Your task to perform on an android device: turn on translation in the chrome app Image 0: 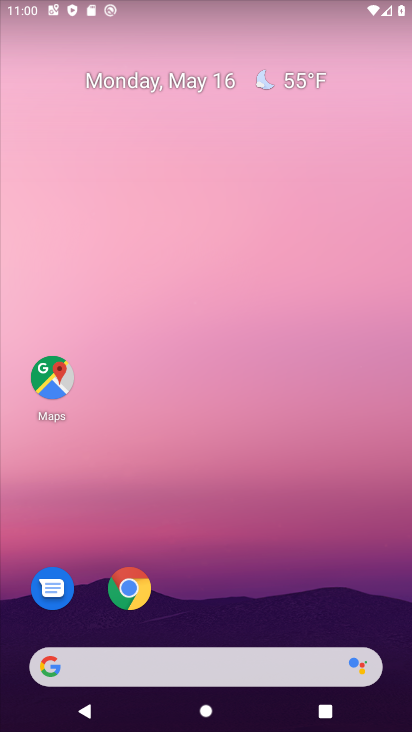
Step 0: drag from (367, 548) to (371, 158)
Your task to perform on an android device: turn on translation in the chrome app Image 1: 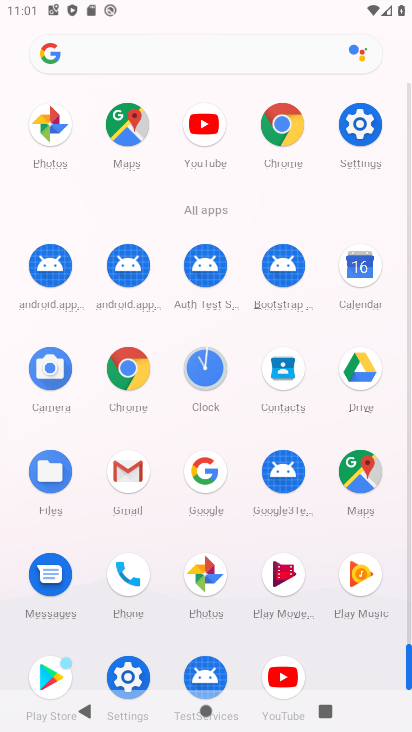
Step 1: click (273, 142)
Your task to perform on an android device: turn on translation in the chrome app Image 2: 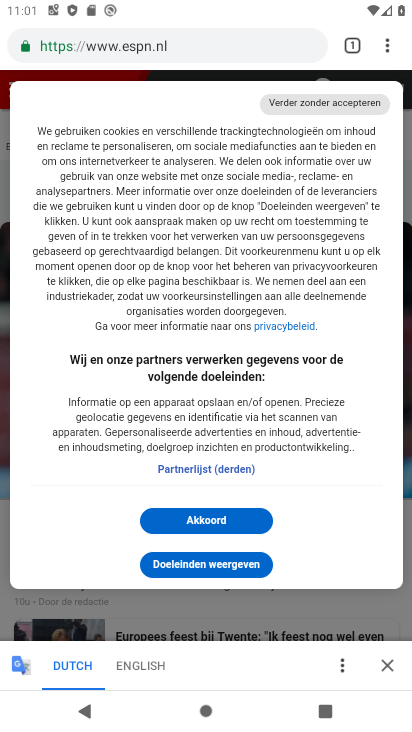
Step 2: click (389, 50)
Your task to perform on an android device: turn on translation in the chrome app Image 3: 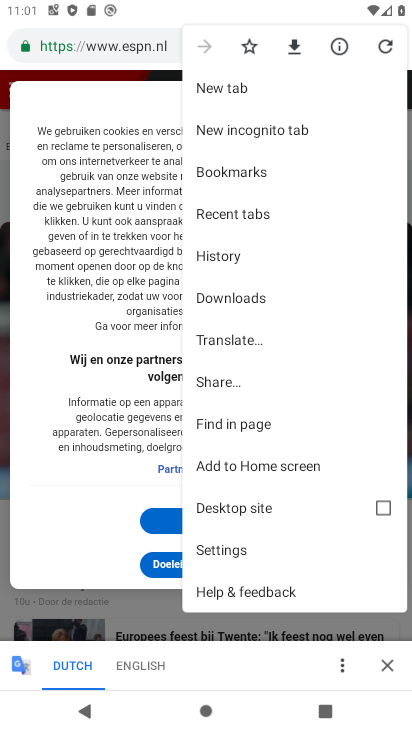
Step 3: click (247, 554)
Your task to perform on an android device: turn on translation in the chrome app Image 4: 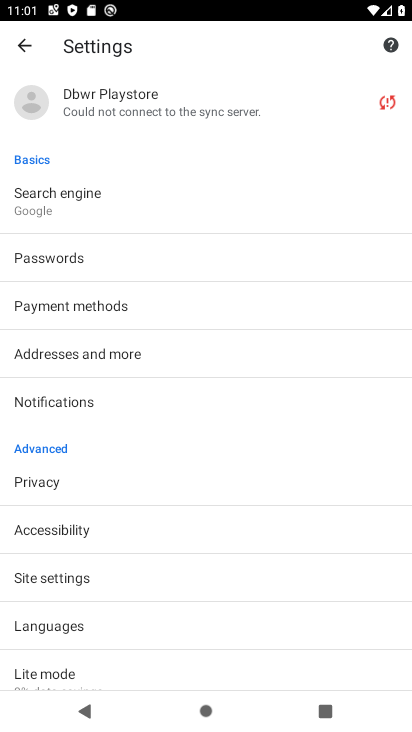
Step 4: drag from (279, 606) to (299, 357)
Your task to perform on an android device: turn on translation in the chrome app Image 5: 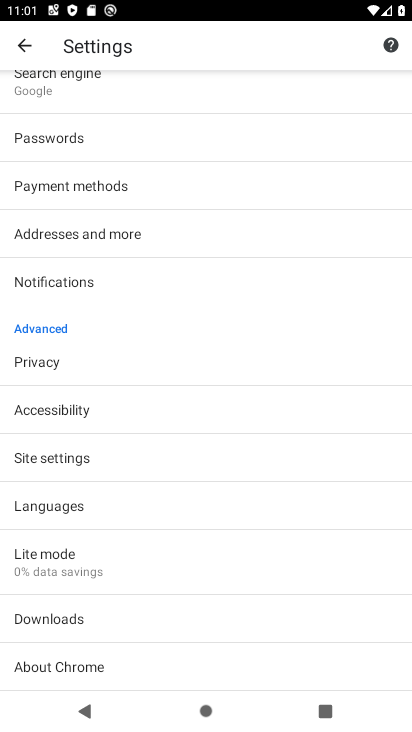
Step 5: drag from (265, 564) to (267, 426)
Your task to perform on an android device: turn on translation in the chrome app Image 6: 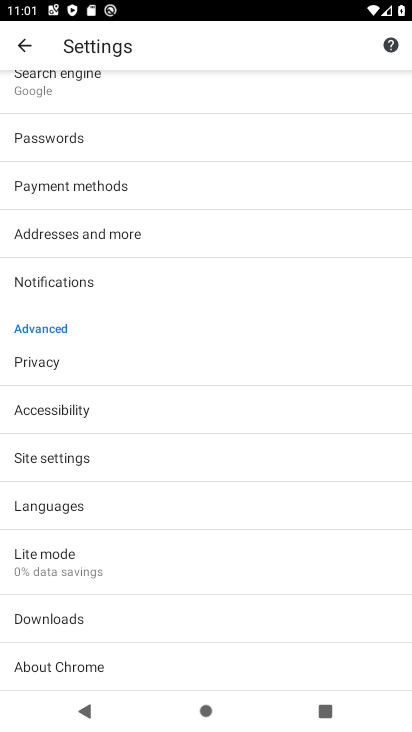
Step 6: drag from (282, 651) to (296, 504)
Your task to perform on an android device: turn on translation in the chrome app Image 7: 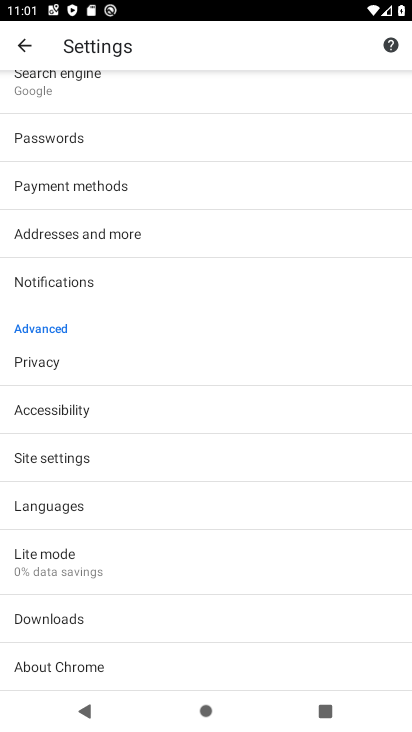
Step 7: click (271, 505)
Your task to perform on an android device: turn on translation in the chrome app Image 8: 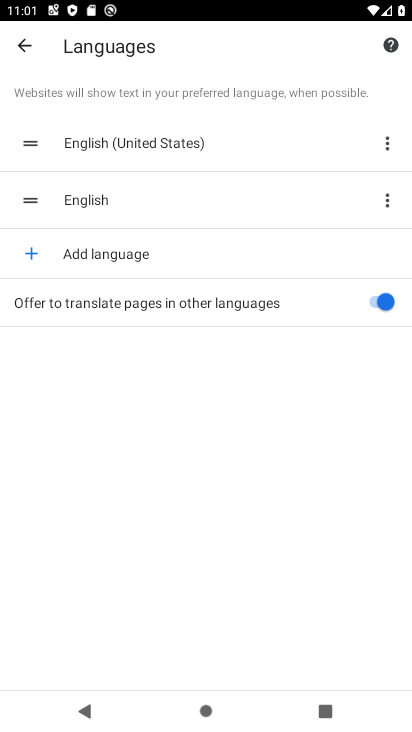
Step 8: task complete